Your task to perform on an android device: change the clock style Image 0: 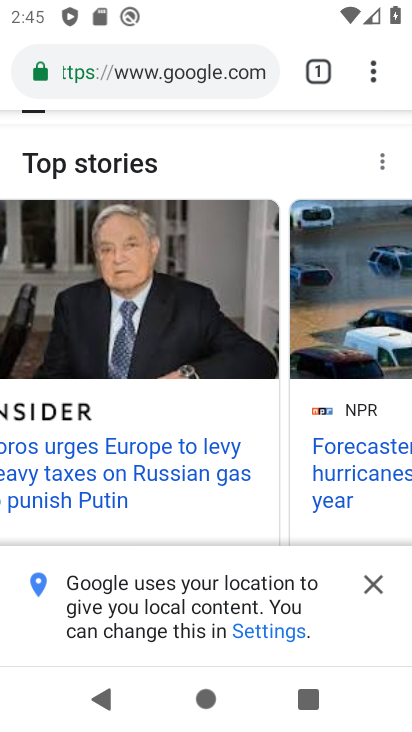
Step 0: press back button
Your task to perform on an android device: change the clock style Image 1: 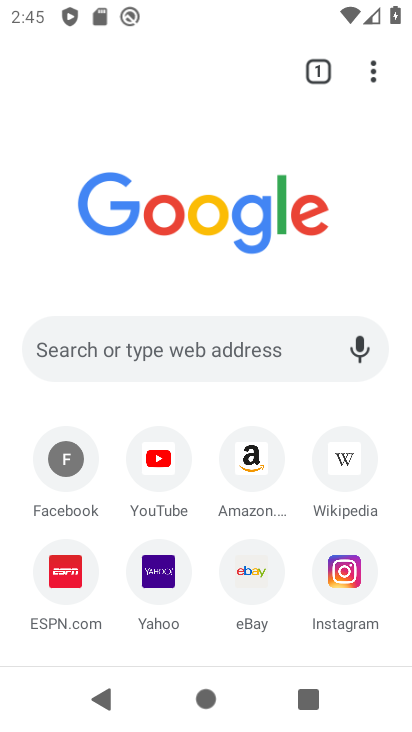
Step 1: press home button
Your task to perform on an android device: change the clock style Image 2: 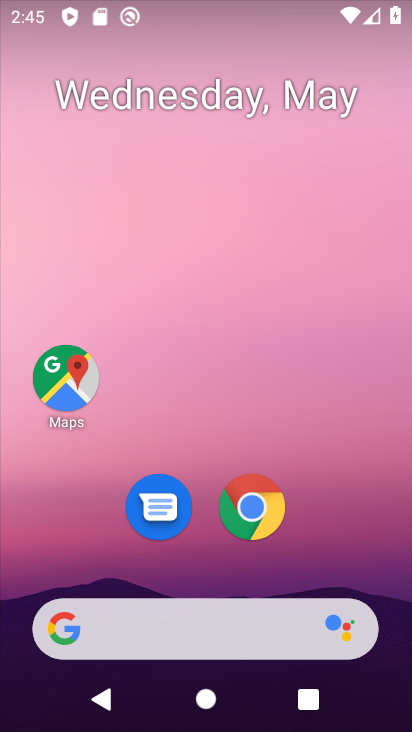
Step 2: drag from (333, 567) to (289, 1)
Your task to perform on an android device: change the clock style Image 3: 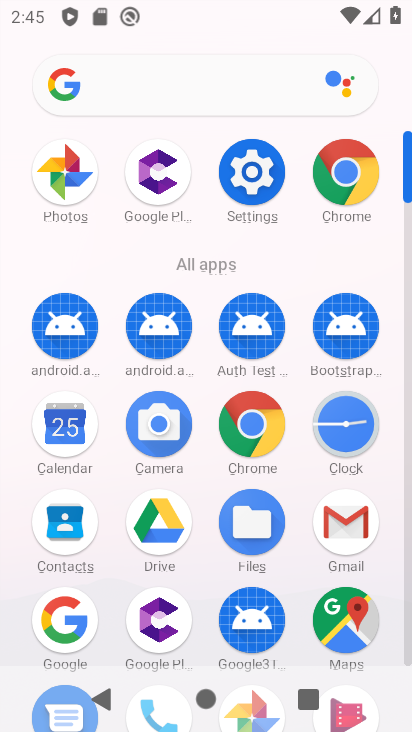
Step 3: drag from (10, 571) to (24, 244)
Your task to perform on an android device: change the clock style Image 4: 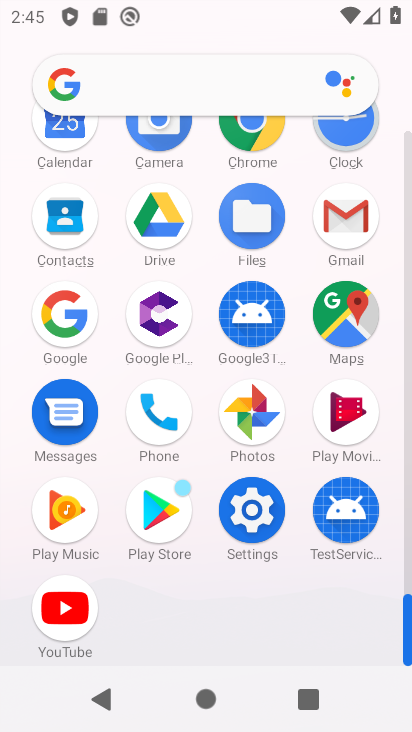
Step 4: drag from (15, 155) to (30, 450)
Your task to perform on an android device: change the clock style Image 5: 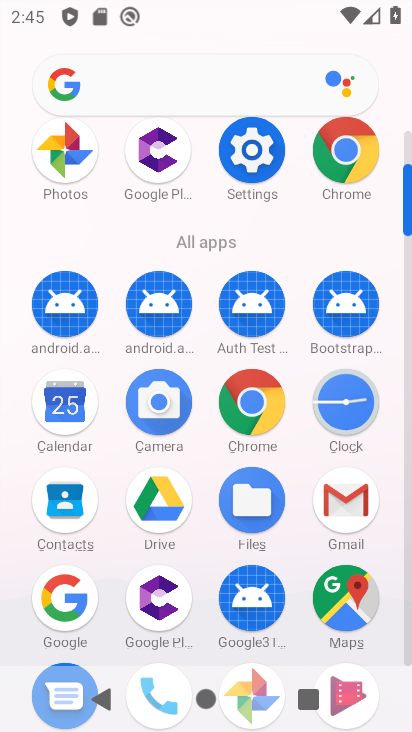
Step 5: click (345, 398)
Your task to perform on an android device: change the clock style Image 6: 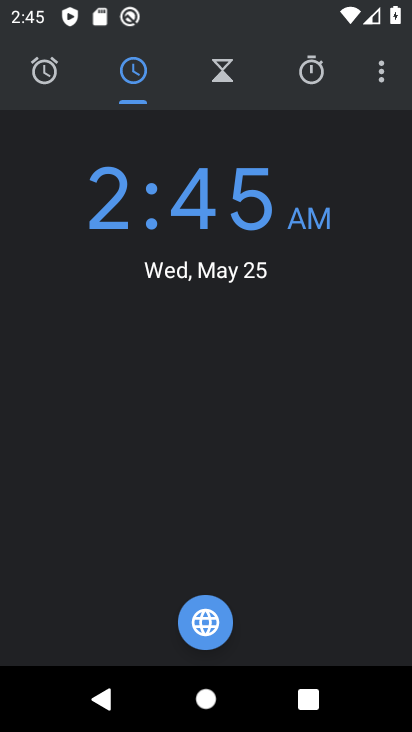
Step 6: click (391, 75)
Your task to perform on an android device: change the clock style Image 7: 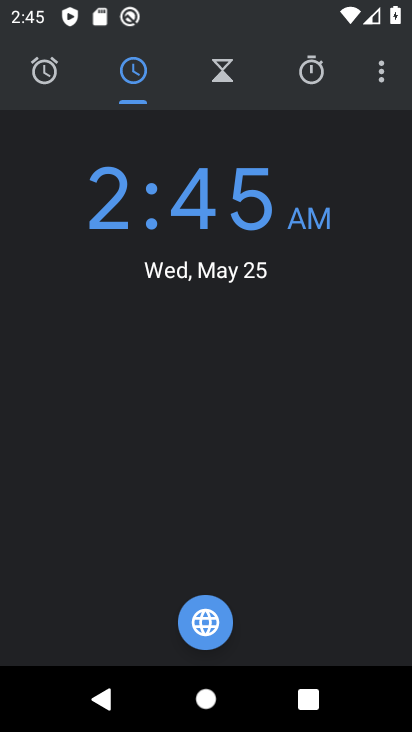
Step 7: drag from (389, 75) to (252, 134)
Your task to perform on an android device: change the clock style Image 8: 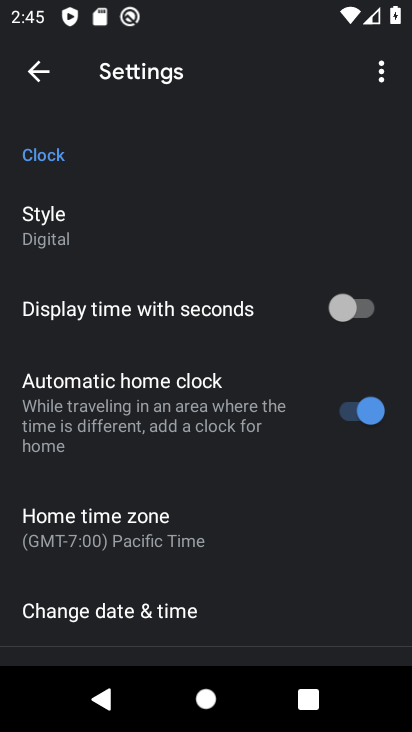
Step 8: click (94, 214)
Your task to perform on an android device: change the clock style Image 9: 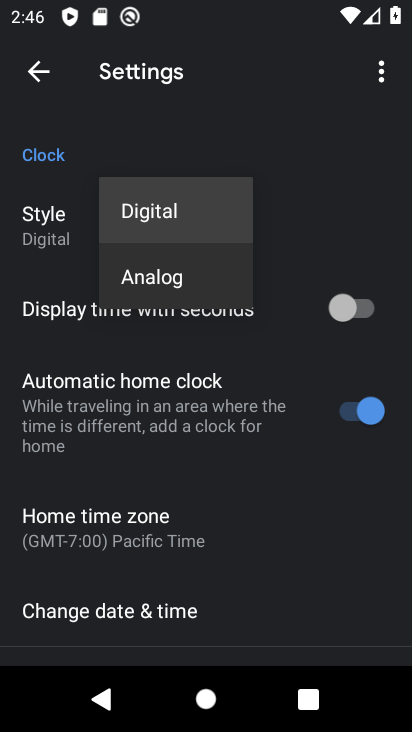
Step 9: click (198, 274)
Your task to perform on an android device: change the clock style Image 10: 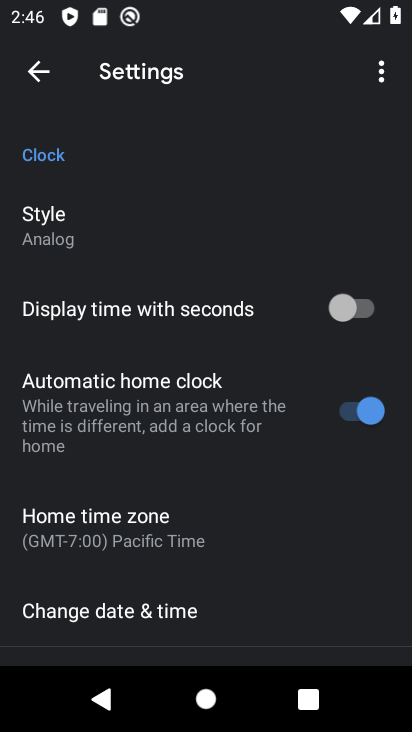
Step 10: task complete